Your task to perform on an android device: turn on location history Image 0: 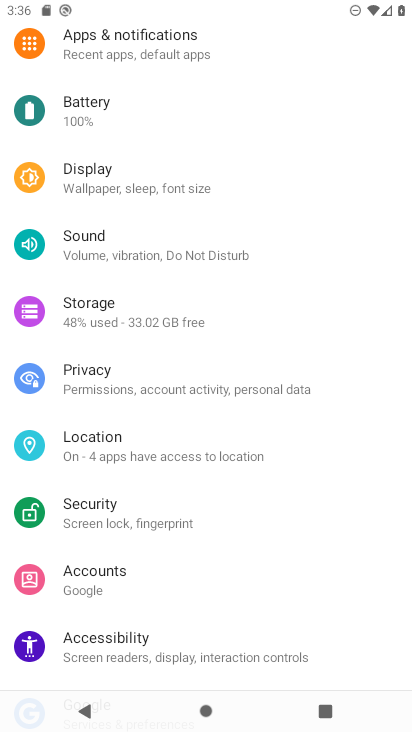
Step 0: click (130, 447)
Your task to perform on an android device: turn on location history Image 1: 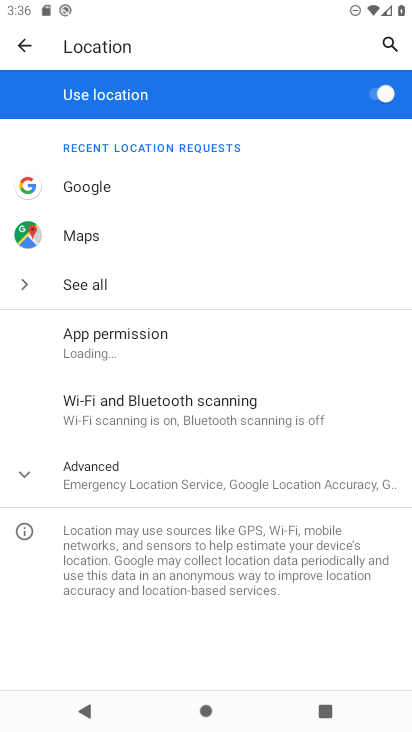
Step 1: click (77, 471)
Your task to perform on an android device: turn on location history Image 2: 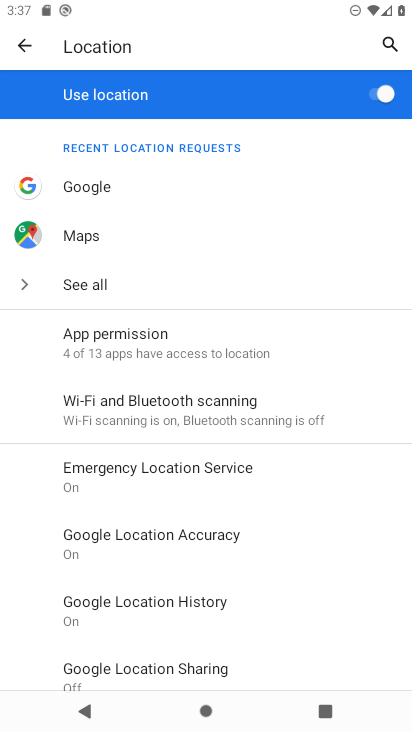
Step 2: click (164, 608)
Your task to perform on an android device: turn on location history Image 3: 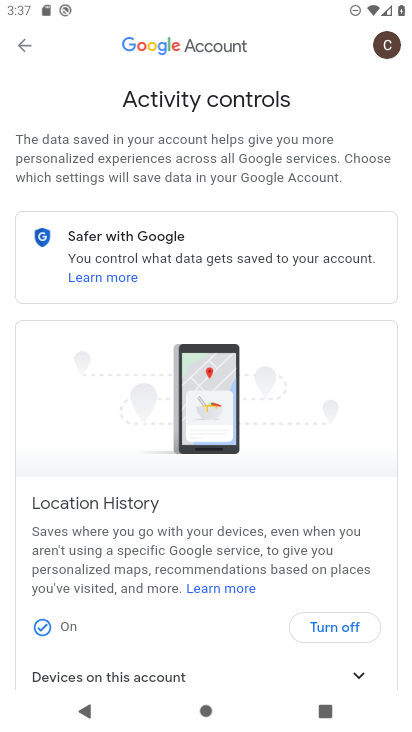
Step 3: task complete